Your task to perform on an android device: move a message to another label in the gmail app Image 0: 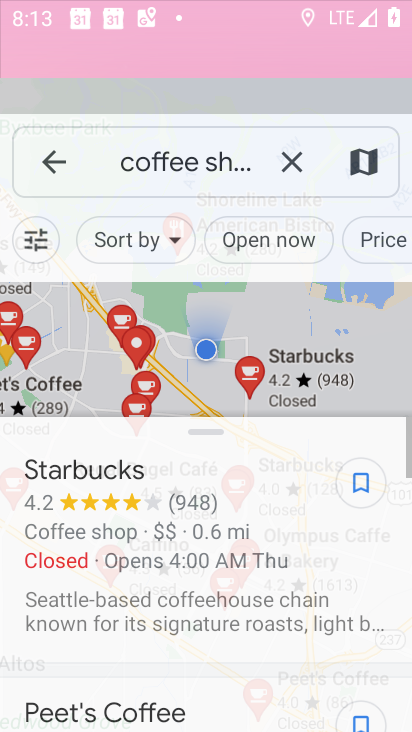
Step 0: click (88, 438)
Your task to perform on an android device: move a message to another label in the gmail app Image 1: 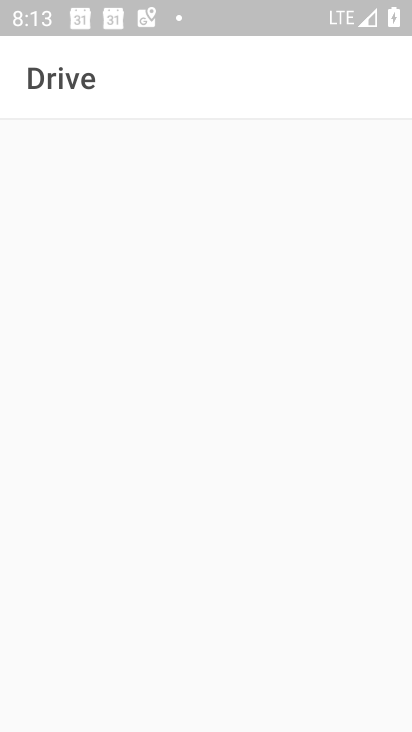
Step 1: click (67, 447)
Your task to perform on an android device: move a message to another label in the gmail app Image 2: 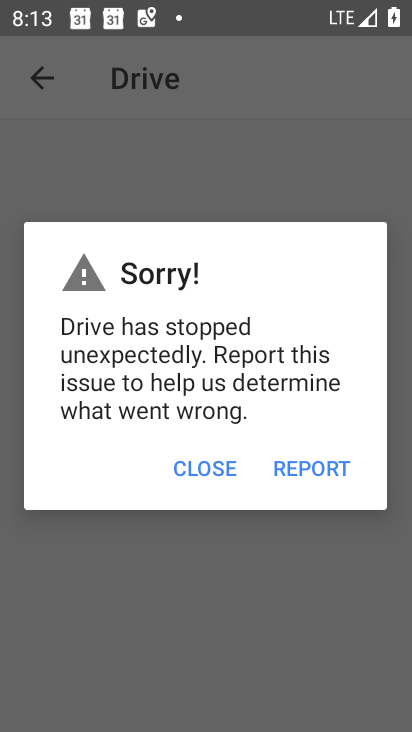
Step 2: click (203, 466)
Your task to perform on an android device: move a message to another label in the gmail app Image 3: 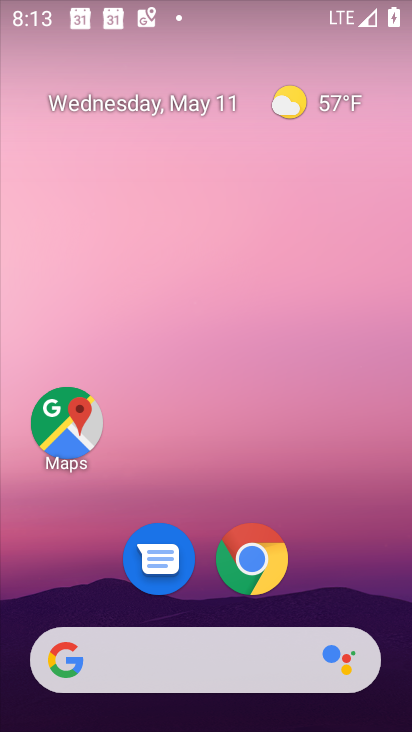
Step 3: click (73, 407)
Your task to perform on an android device: move a message to another label in the gmail app Image 4: 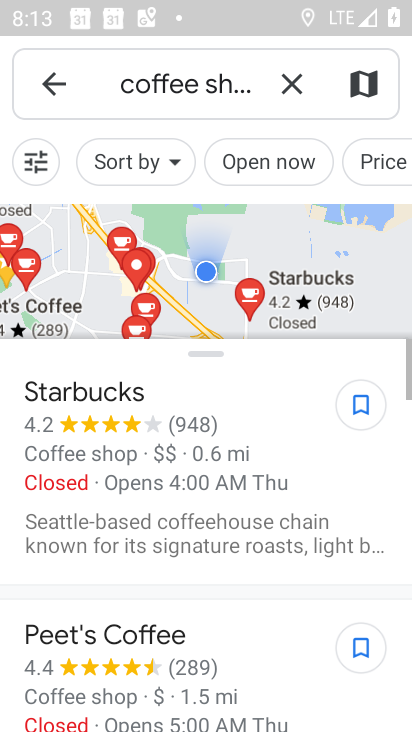
Step 4: press home button
Your task to perform on an android device: move a message to another label in the gmail app Image 5: 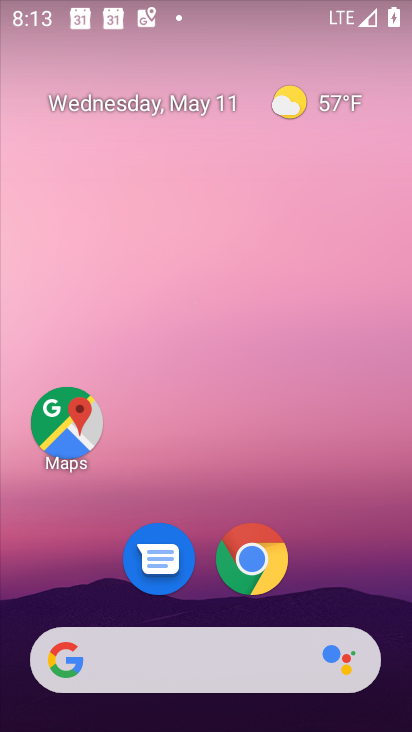
Step 5: drag from (341, 559) to (340, 27)
Your task to perform on an android device: move a message to another label in the gmail app Image 6: 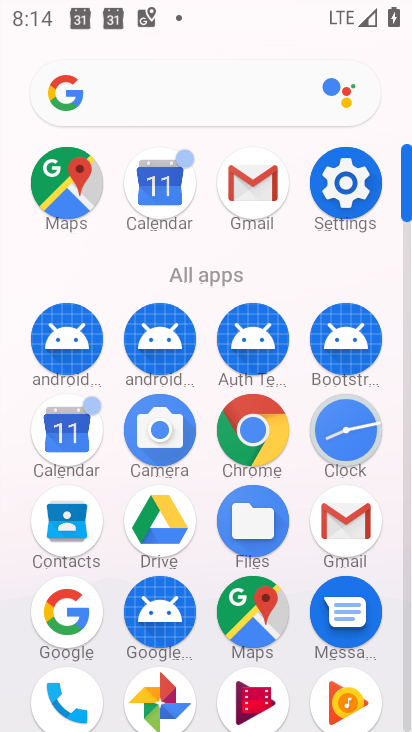
Step 6: click (271, 198)
Your task to perform on an android device: move a message to another label in the gmail app Image 7: 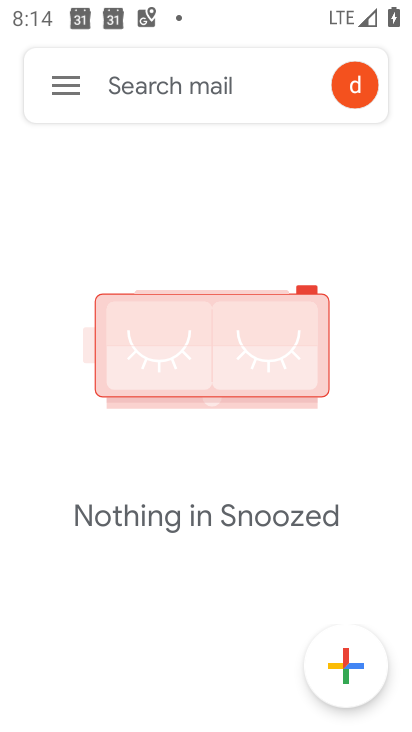
Step 7: click (66, 87)
Your task to perform on an android device: move a message to another label in the gmail app Image 8: 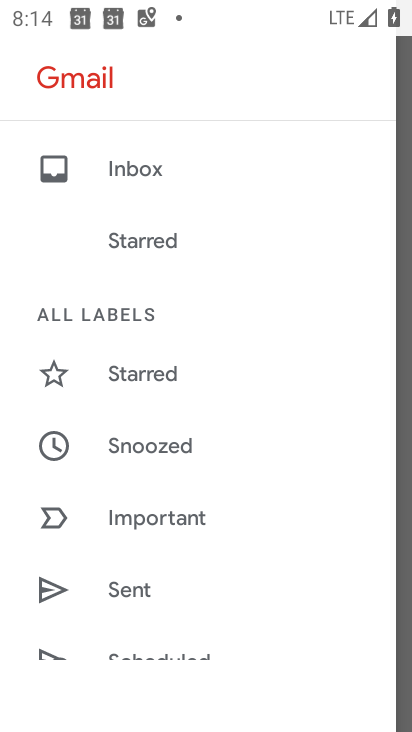
Step 8: task complete